Your task to perform on an android device: Go to wifi settings Image 0: 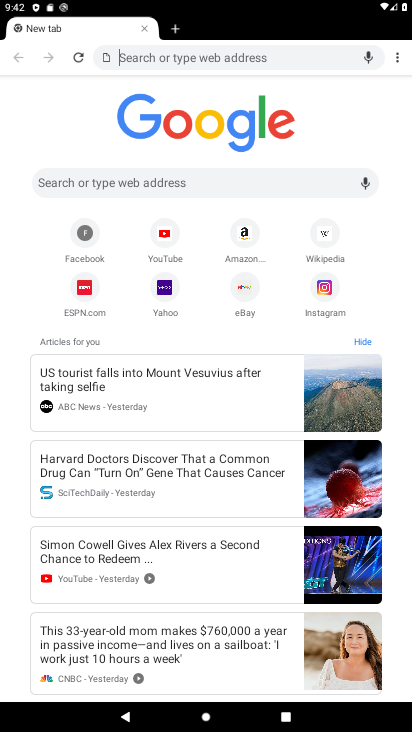
Step 0: press home button
Your task to perform on an android device: Go to wifi settings Image 1: 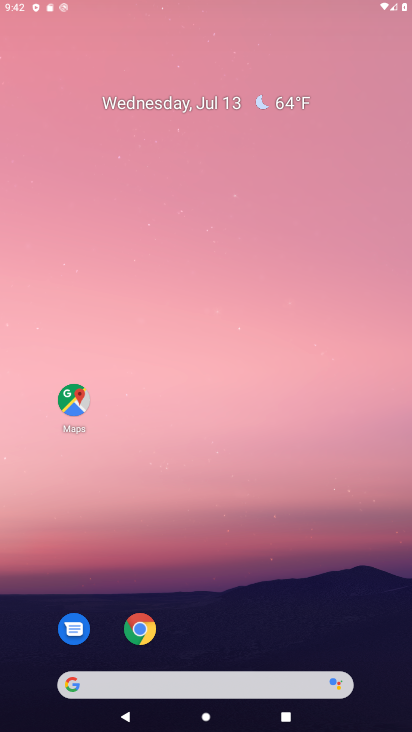
Step 1: drag from (204, 644) to (224, 134)
Your task to perform on an android device: Go to wifi settings Image 2: 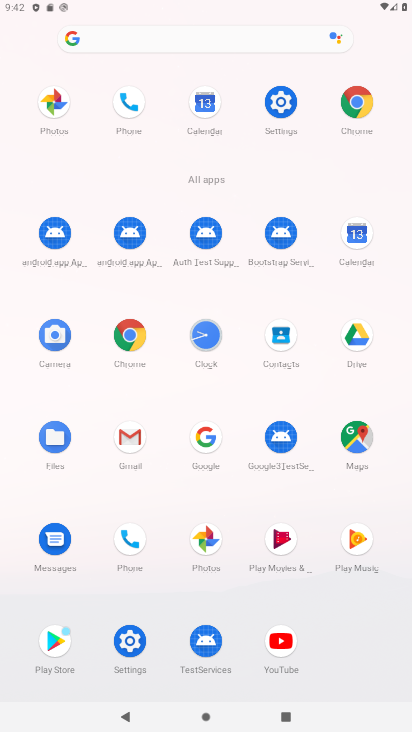
Step 2: click (275, 84)
Your task to perform on an android device: Go to wifi settings Image 3: 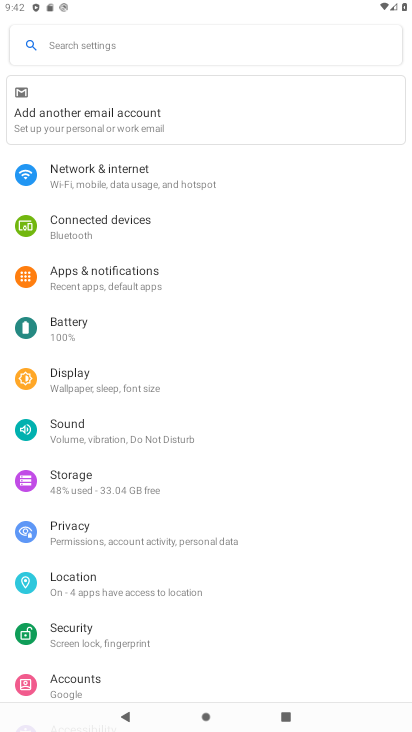
Step 3: click (100, 176)
Your task to perform on an android device: Go to wifi settings Image 4: 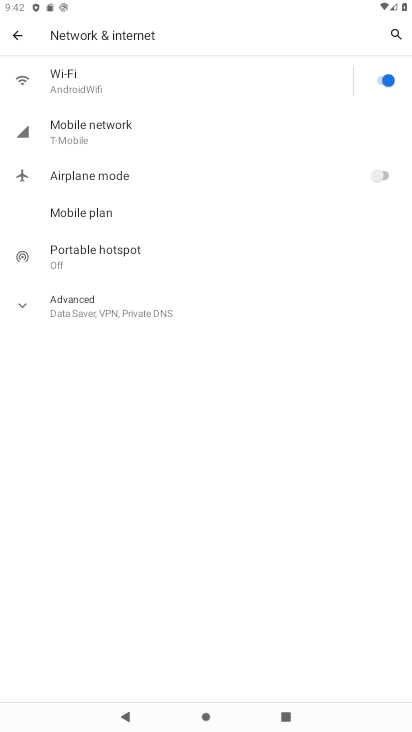
Step 4: click (106, 66)
Your task to perform on an android device: Go to wifi settings Image 5: 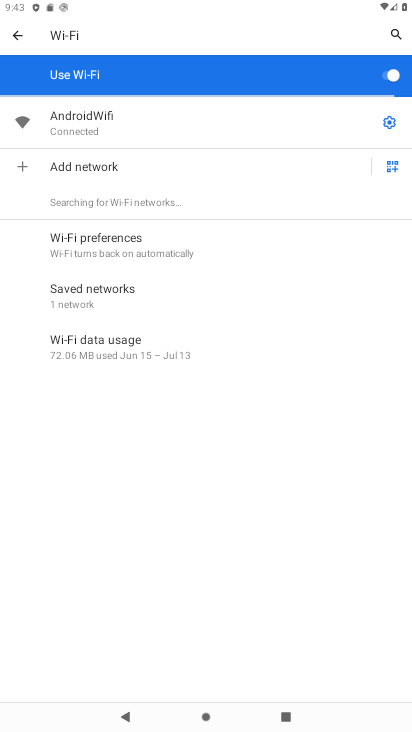
Step 5: task complete